Your task to perform on an android device: add a contact in the contacts app Image 0: 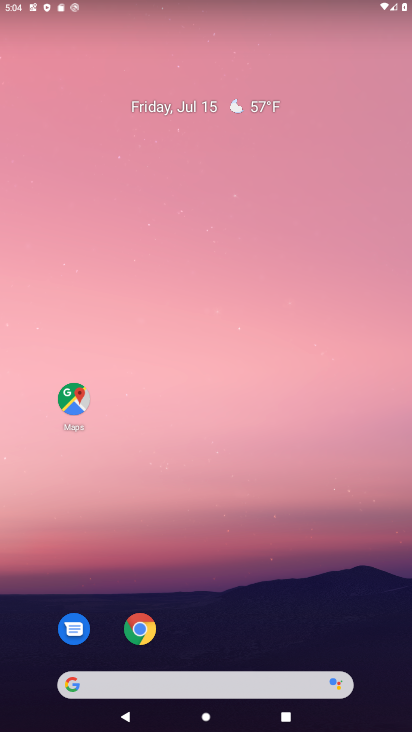
Step 0: press home button
Your task to perform on an android device: add a contact in the contacts app Image 1: 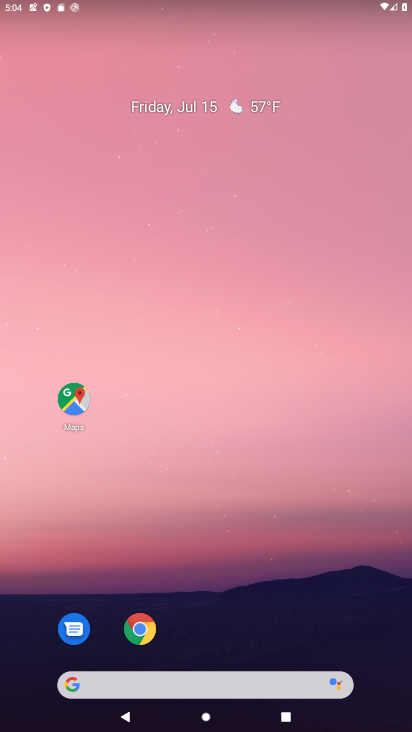
Step 1: drag from (316, 593) to (263, 37)
Your task to perform on an android device: add a contact in the contacts app Image 2: 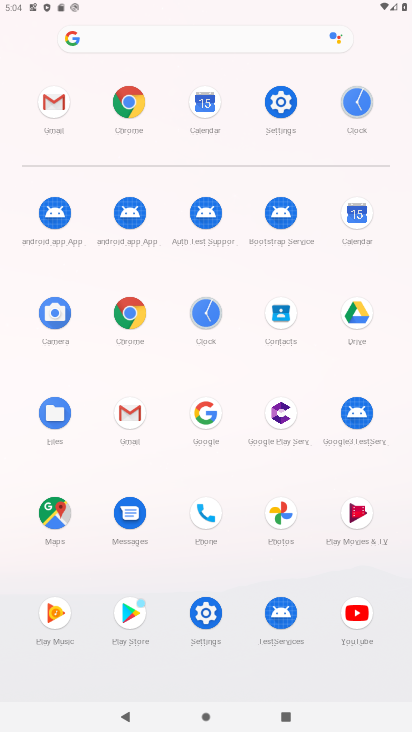
Step 2: click (283, 307)
Your task to perform on an android device: add a contact in the contacts app Image 3: 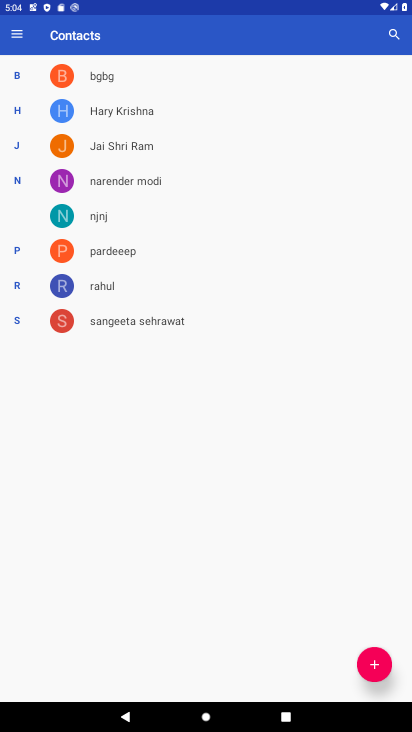
Step 3: click (375, 658)
Your task to perform on an android device: add a contact in the contacts app Image 4: 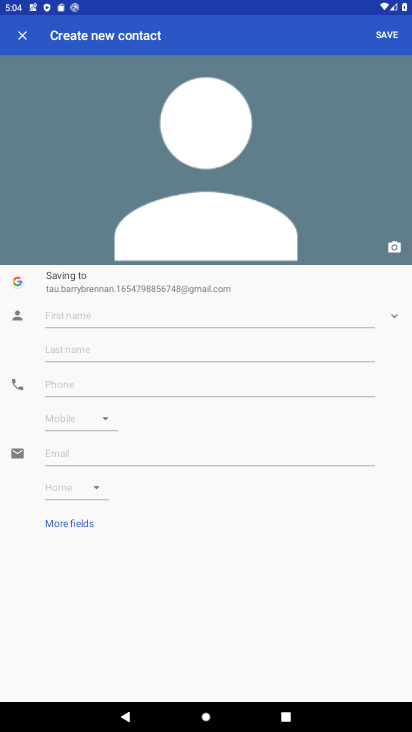
Step 4: click (145, 316)
Your task to perform on an android device: add a contact in the contacts app Image 5: 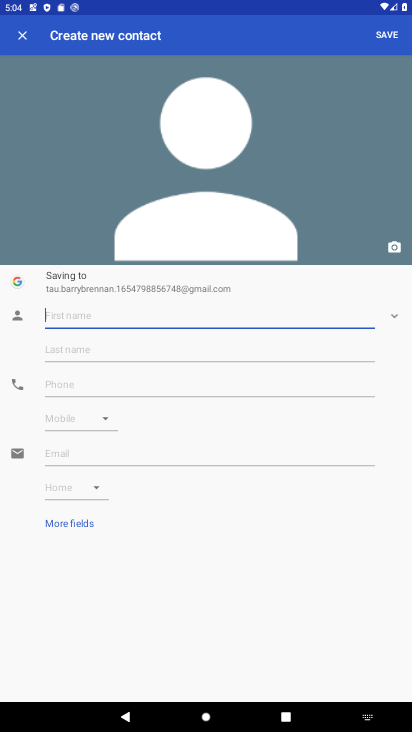
Step 5: type "ddggbhfddgdgd"
Your task to perform on an android device: add a contact in the contacts app Image 6: 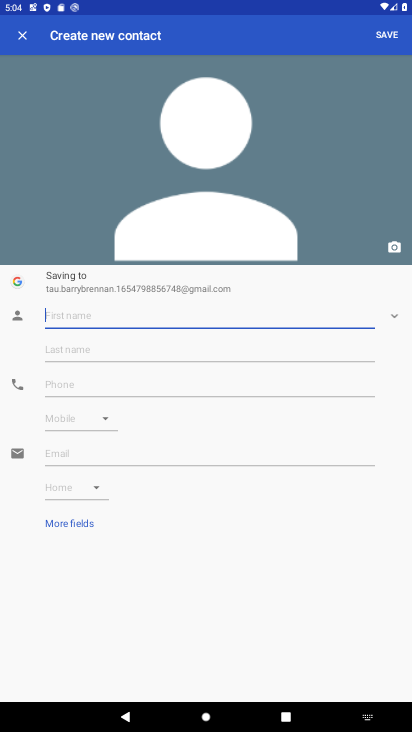
Step 6: click (137, 319)
Your task to perform on an android device: add a contact in the contacts app Image 7: 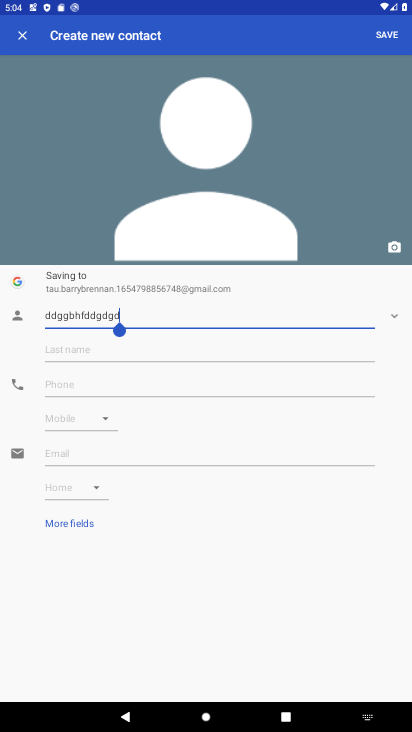
Step 7: click (144, 383)
Your task to perform on an android device: add a contact in the contacts app Image 8: 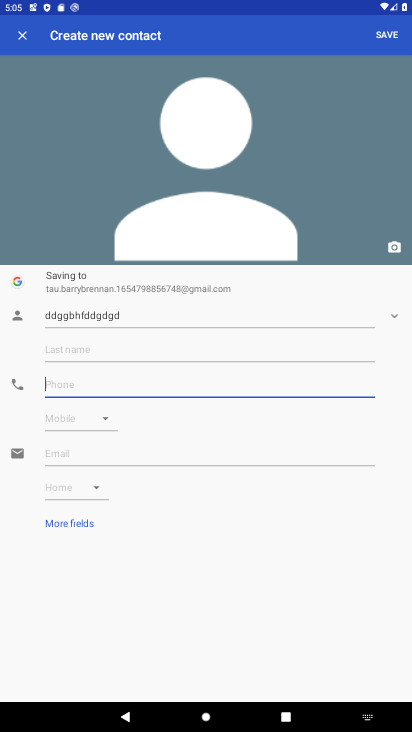
Step 8: type "4334345355353"
Your task to perform on an android device: add a contact in the contacts app Image 9: 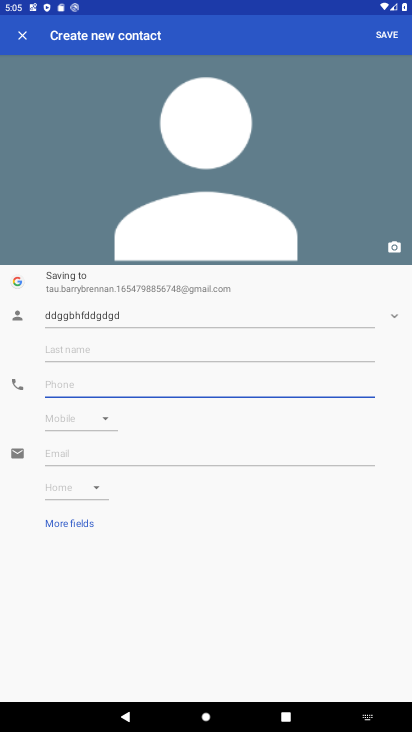
Step 9: click (108, 388)
Your task to perform on an android device: add a contact in the contacts app Image 10: 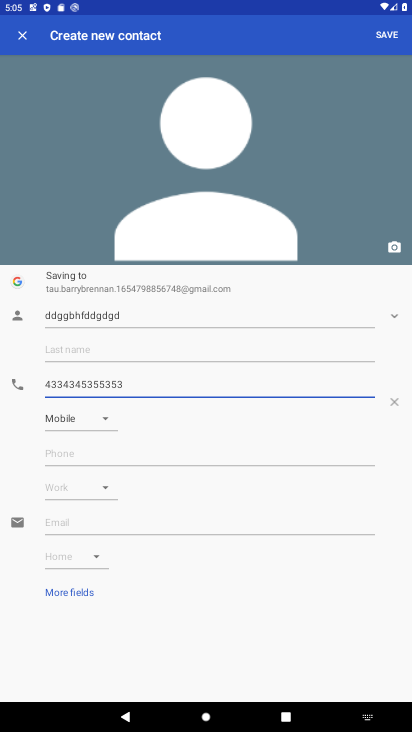
Step 10: click (393, 36)
Your task to perform on an android device: add a contact in the contacts app Image 11: 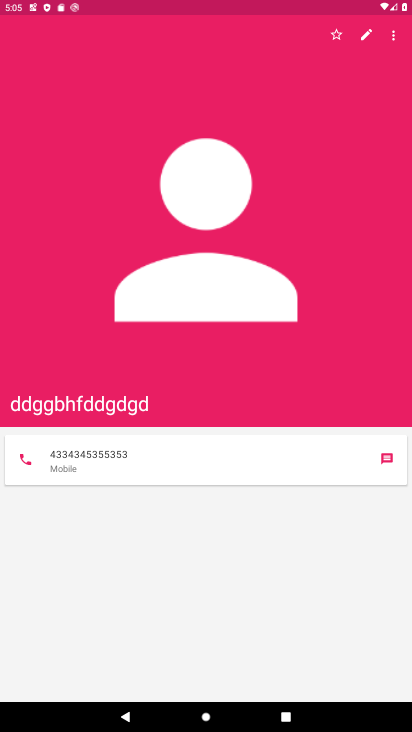
Step 11: task complete